Your task to perform on an android device: find photos in the google photos app Image 0: 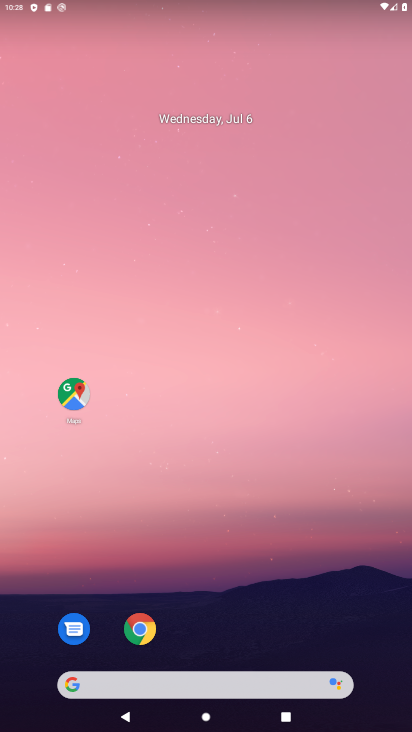
Step 0: drag from (226, 344) to (226, 41)
Your task to perform on an android device: find photos in the google photos app Image 1: 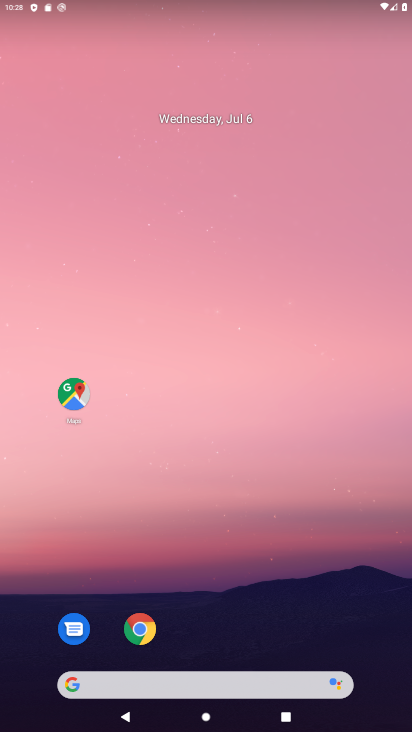
Step 1: drag from (229, 644) to (214, 23)
Your task to perform on an android device: find photos in the google photos app Image 2: 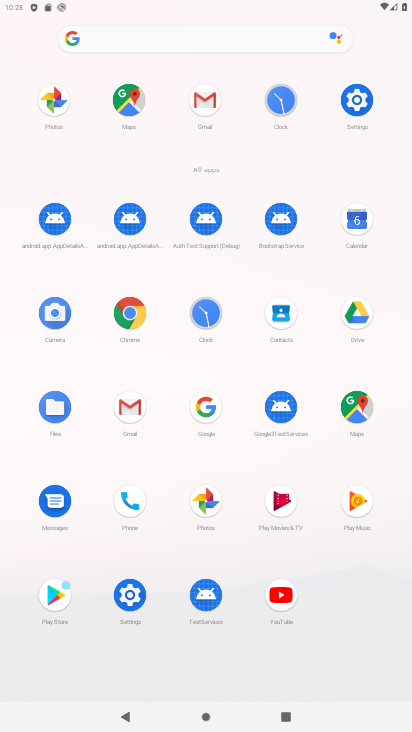
Step 2: click (56, 96)
Your task to perform on an android device: find photos in the google photos app Image 3: 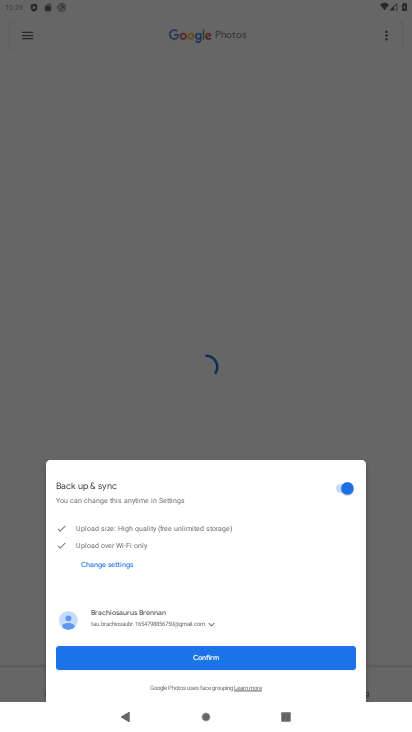
Step 3: click (202, 661)
Your task to perform on an android device: find photos in the google photos app Image 4: 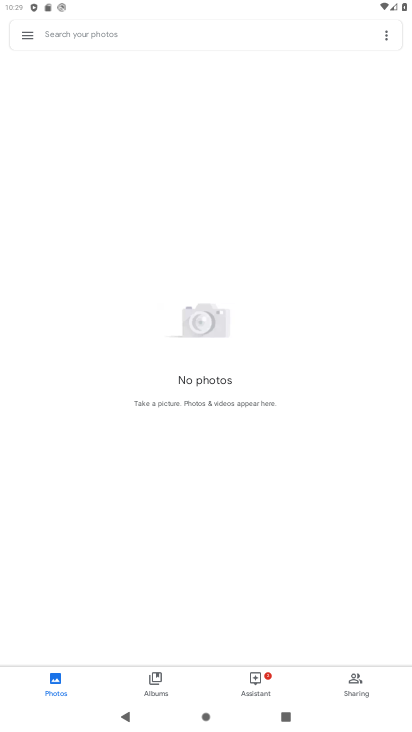
Step 4: task complete